Your task to perform on an android device: change the clock display to digital Image 0: 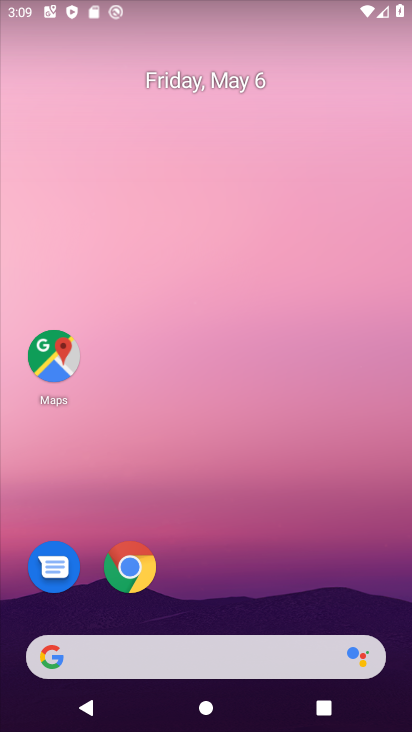
Step 0: drag from (176, 457) to (186, 138)
Your task to perform on an android device: change the clock display to digital Image 1: 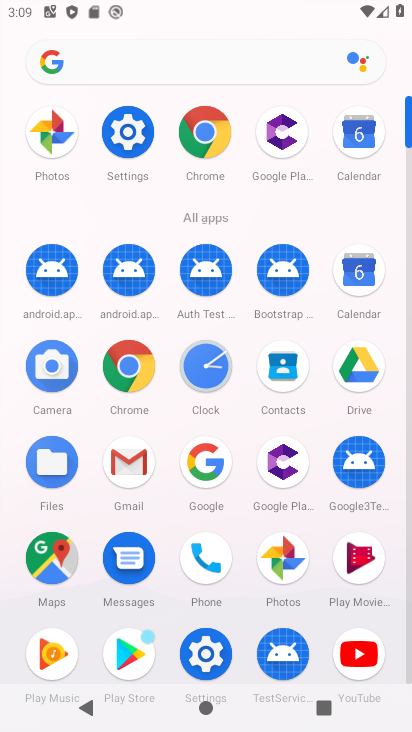
Step 1: click (202, 372)
Your task to perform on an android device: change the clock display to digital Image 2: 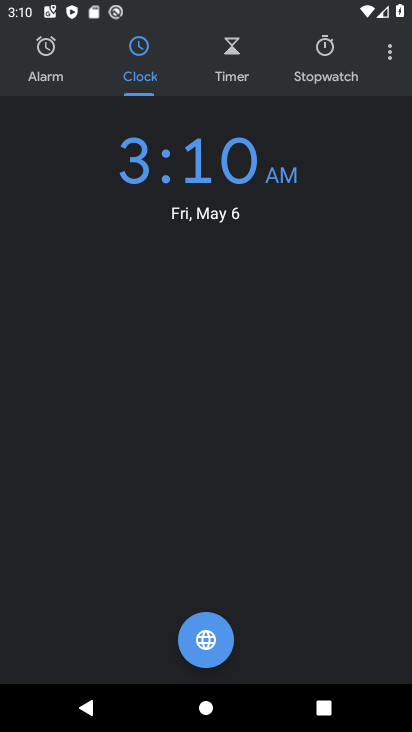
Step 2: click (391, 56)
Your task to perform on an android device: change the clock display to digital Image 3: 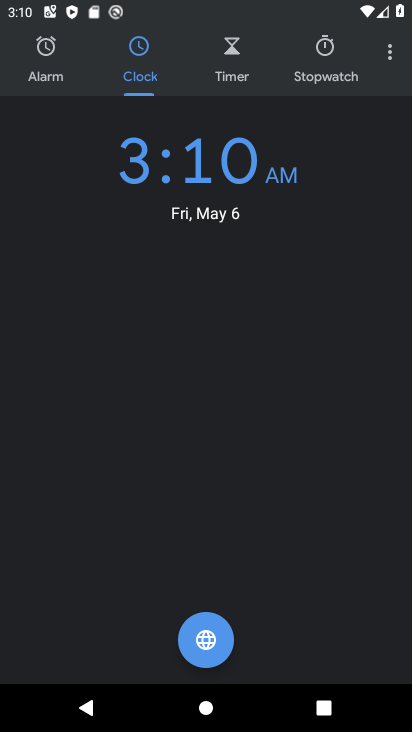
Step 3: click (389, 56)
Your task to perform on an android device: change the clock display to digital Image 4: 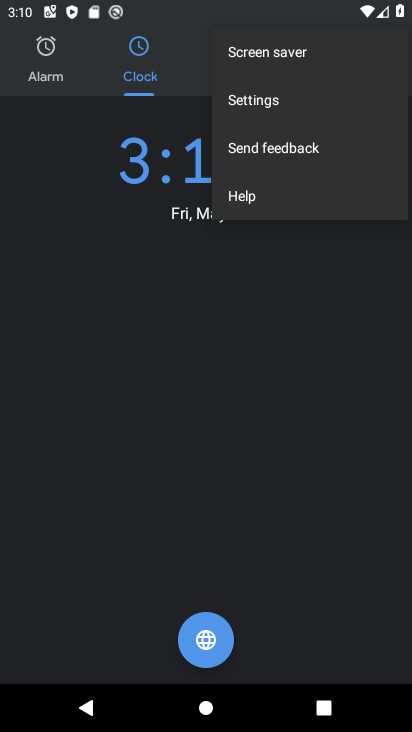
Step 4: click (281, 97)
Your task to perform on an android device: change the clock display to digital Image 5: 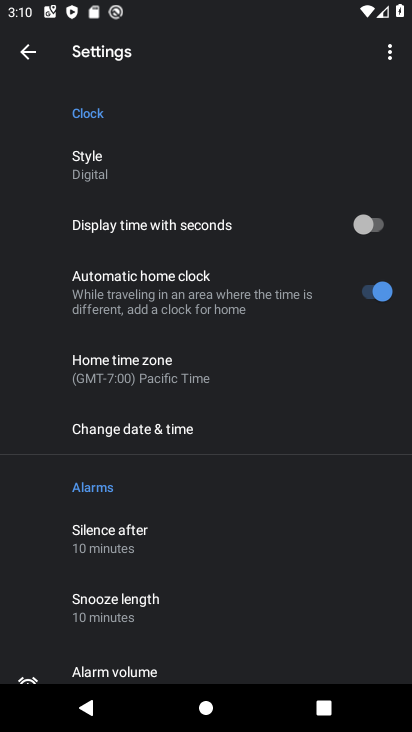
Step 5: click (135, 169)
Your task to perform on an android device: change the clock display to digital Image 6: 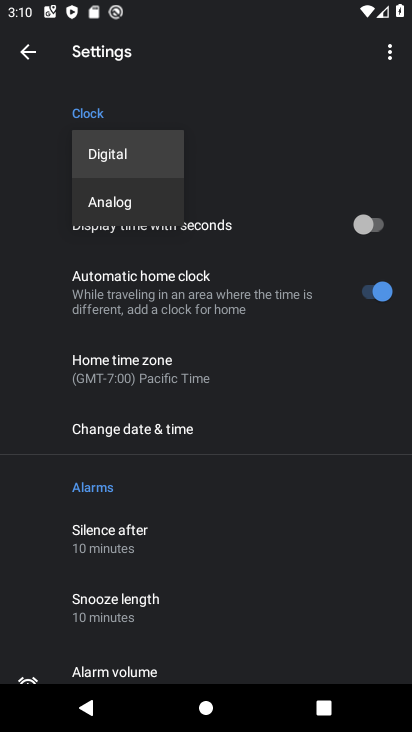
Step 6: task complete